Your task to perform on an android device: turn off improve location accuracy Image 0: 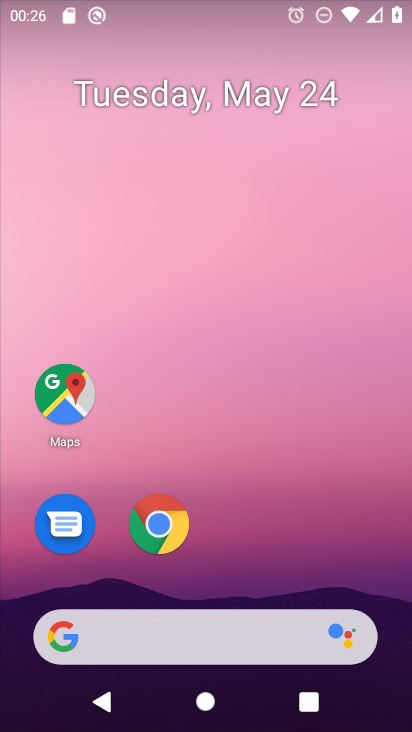
Step 0: drag from (195, 591) to (227, 48)
Your task to perform on an android device: turn off improve location accuracy Image 1: 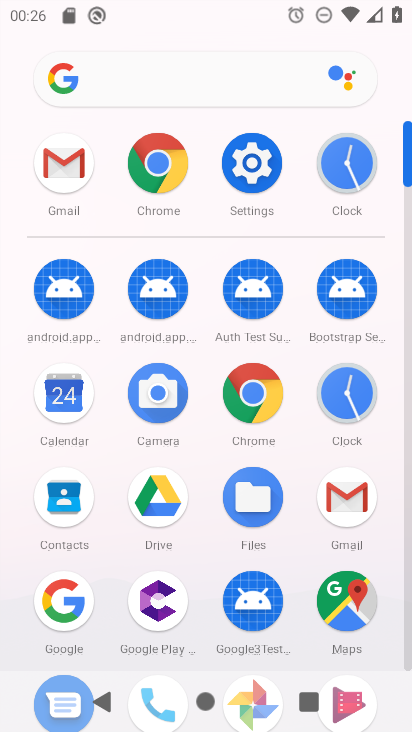
Step 1: click (245, 189)
Your task to perform on an android device: turn off improve location accuracy Image 2: 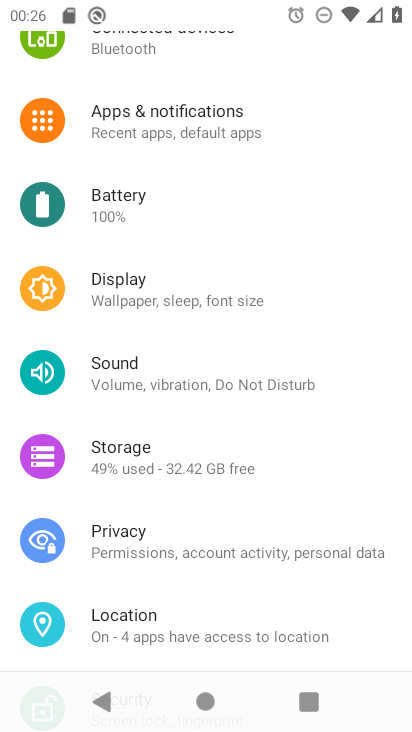
Step 2: click (150, 609)
Your task to perform on an android device: turn off improve location accuracy Image 3: 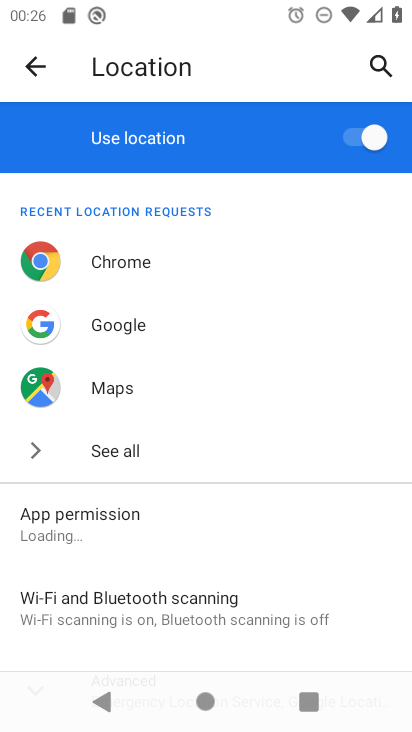
Step 3: drag from (206, 552) to (256, 388)
Your task to perform on an android device: turn off improve location accuracy Image 4: 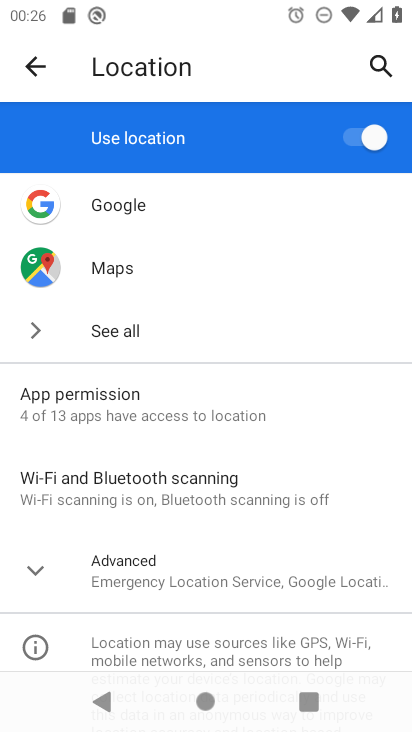
Step 4: click (219, 574)
Your task to perform on an android device: turn off improve location accuracy Image 5: 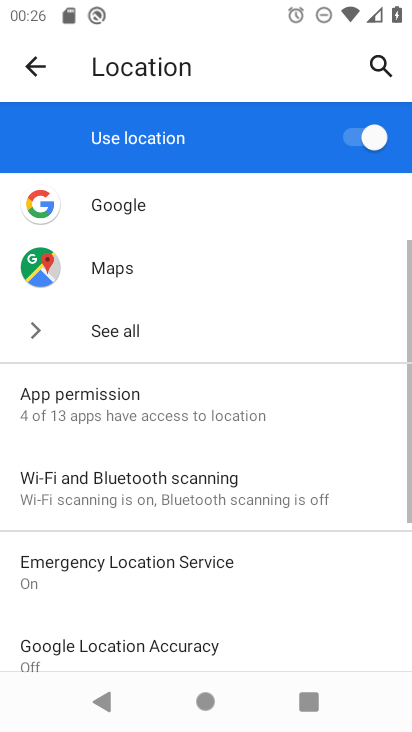
Step 5: task complete